Your task to perform on an android device: Go to sound settings Image 0: 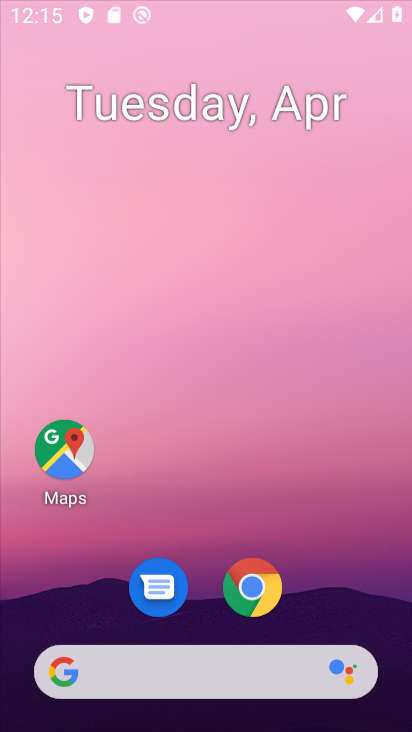
Step 0: click (347, 145)
Your task to perform on an android device: Go to sound settings Image 1: 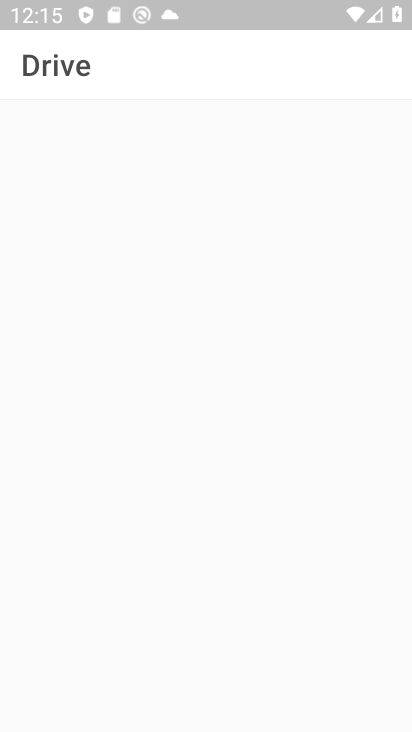
Step 1: press home button
Your task to perform on an android device: Go to sound settings Image 2: 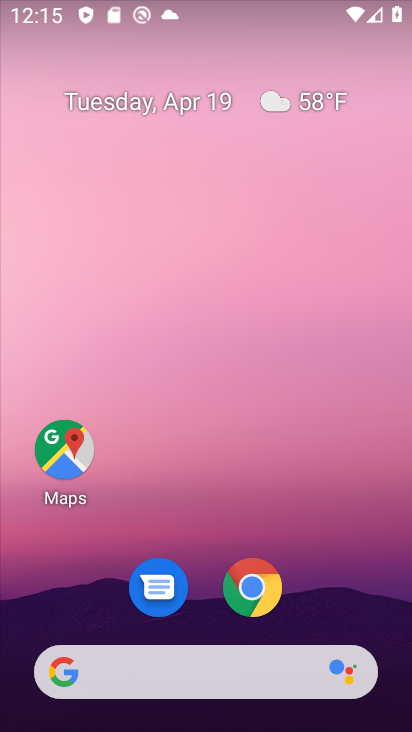
Step 2: drag from (368, 558) to (358, 183)
Your task to perform on an android device: Go to sound settings Image 3: 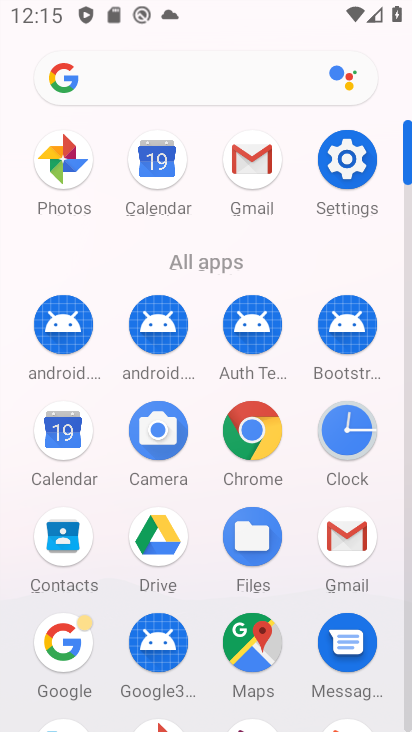
Step 3: click (355, 156)
Your task to perform on an android device: Go to sound settings Image 4: 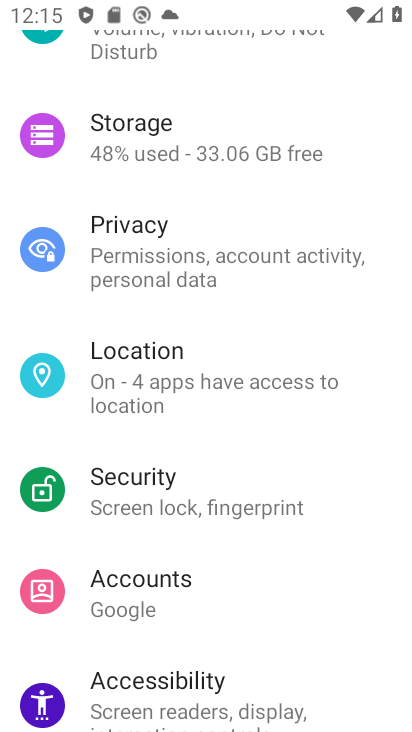
Step 4: drag from (317, 108) to (301, 528)
Your task to perform on an android device: Go to sound settings Image 5: 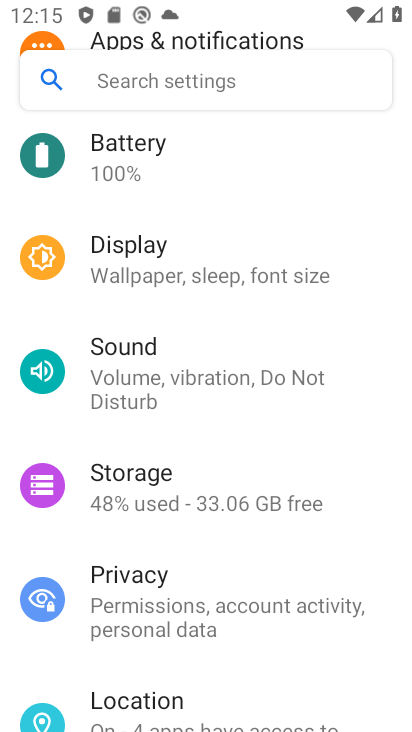
Step 5: click (148, 352)
Your task to perform on an android device: Go to sound settings Image 6: 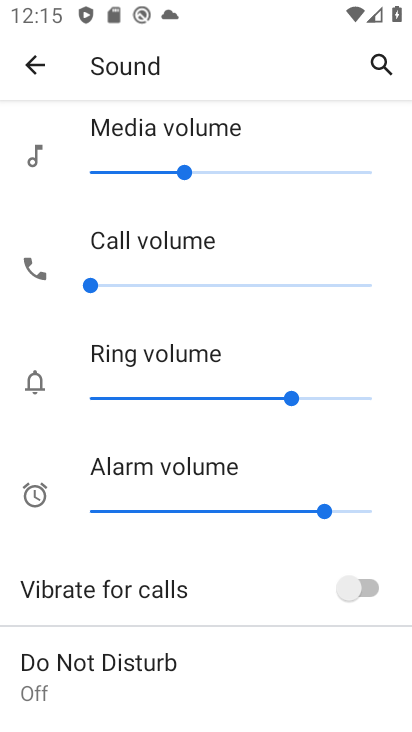
Step 6: task complete